Your task to perform on an android device: Go to sound settings Image 0: 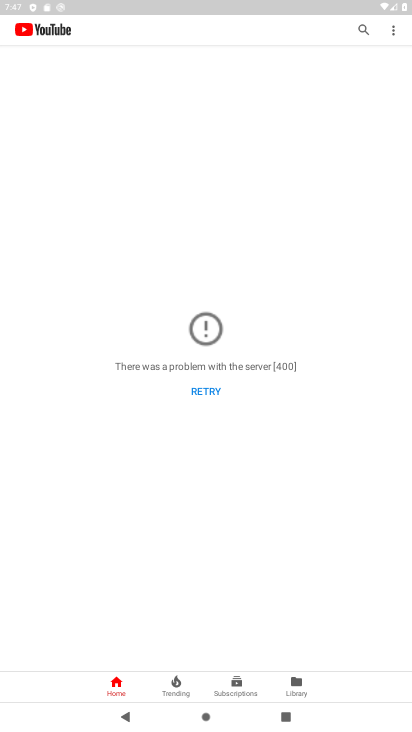
Step 0: press home button
Your task to perform on an android device: Go to sound settings Image 1: 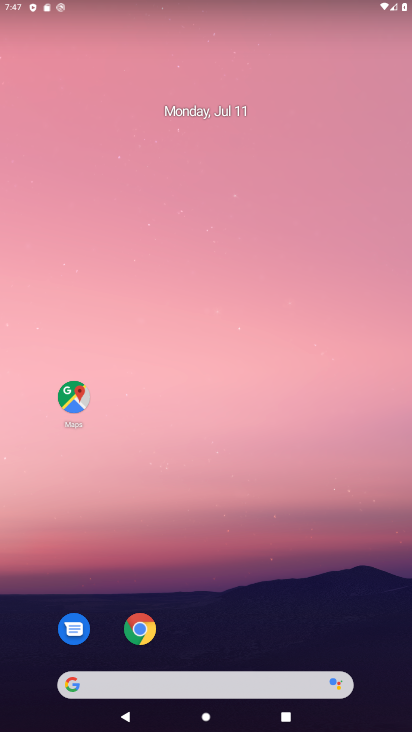
Step 1: drag from (234, 651) to (172, 139)
Your task to perform on an android device: Go to sound settings Image 2: 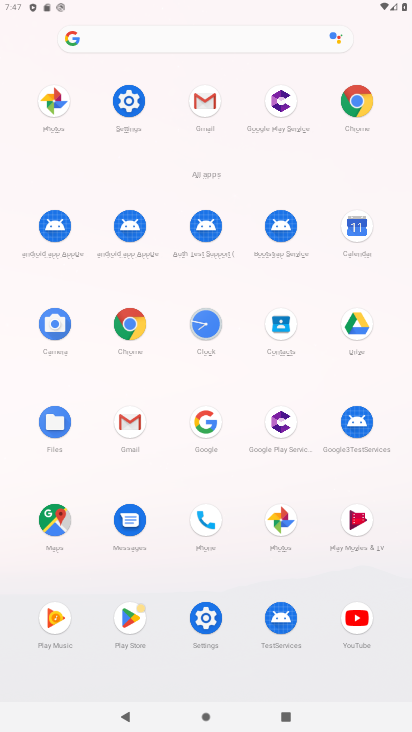
Step 2: click (127, 116)
Your task to perform on an android device: Go to sound settings Image 3: 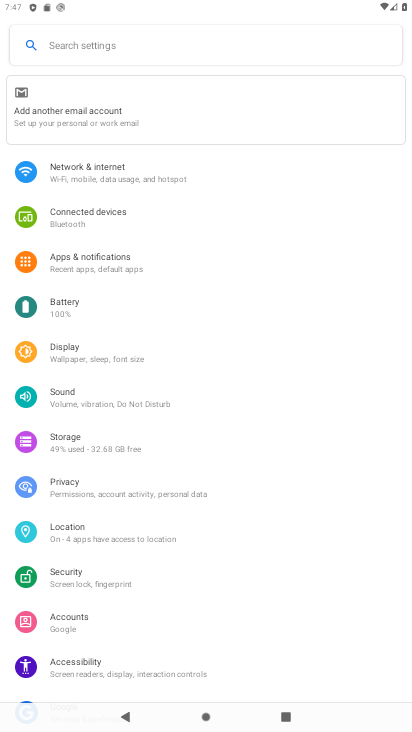
Step 3: click (96, 407)
Your task to perform on an android device: Go to sound settings Image 4: 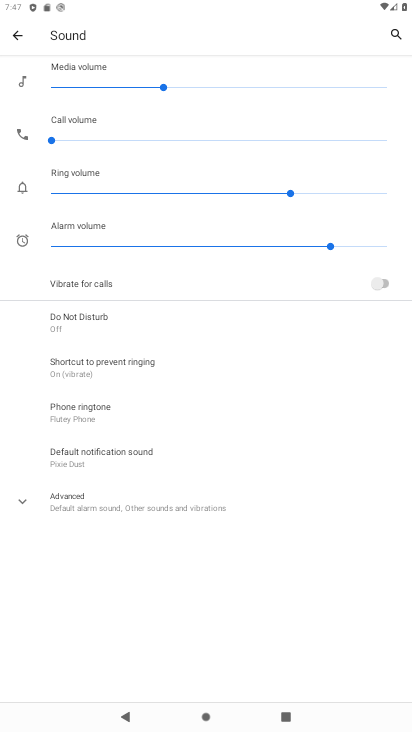
Step 4: click (114, 489)
Your task to perform on an android device: Go to sound settings Image 5: 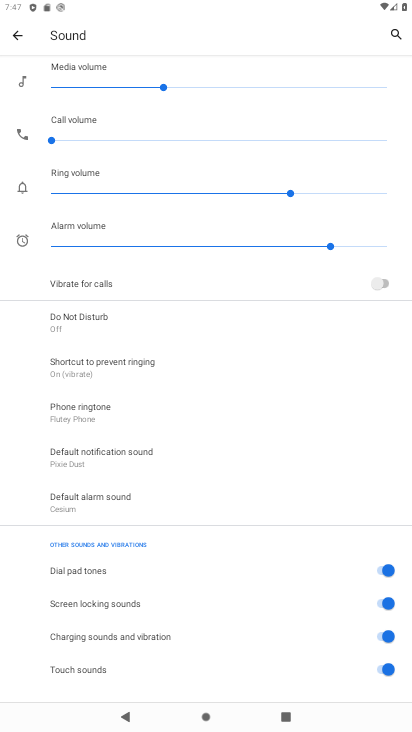
Step 5: task complete